Your task to perform on an android device: toggle notifications settings in the gmail app Image 0: 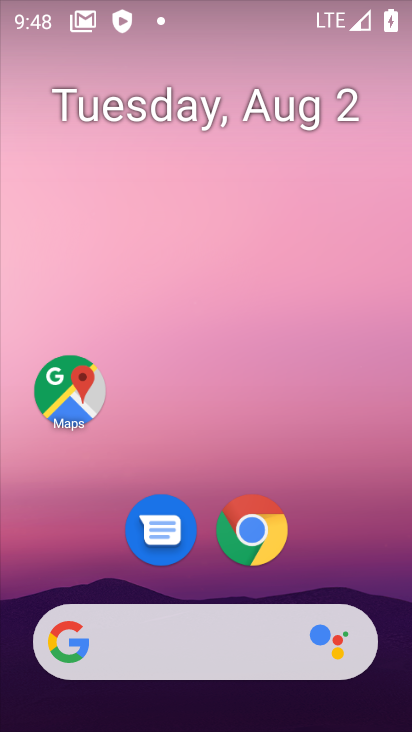
Step 0: drag from (352, 559) to (399, 1)
Your task to perform on an android device: toggle notifications settings in the gmail app Image 1: 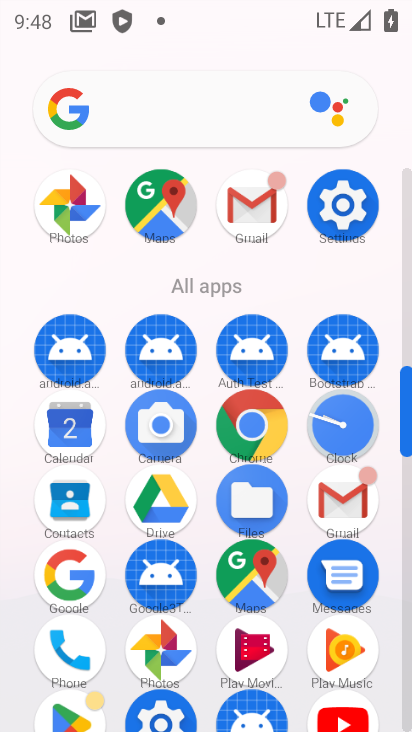
Step 1: click (340, 503)
Your task to perform on an android device: toggle notifications settings in the gmail app Image 2: 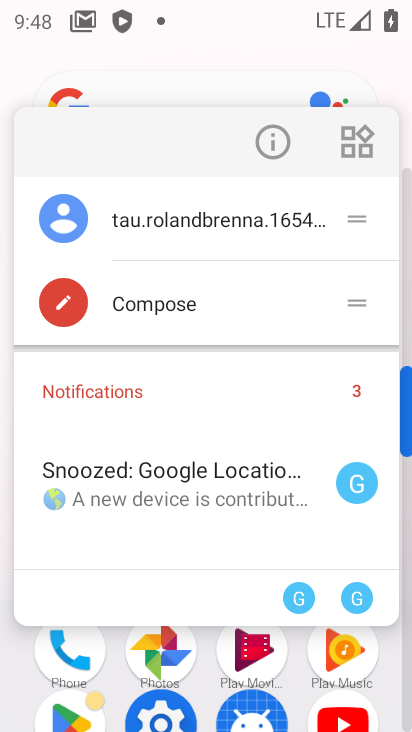
Step 2: click (276, 143)
Your task to perform on an android device: toggle notifications settings in the gmail app Image 3: 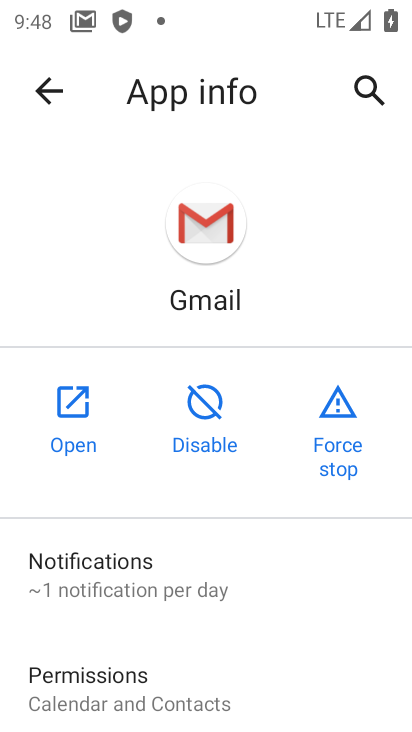
Step 3: click (126, 582)
Your task to perform on an android device: toggle notifications settings in the gmail app Image 4: 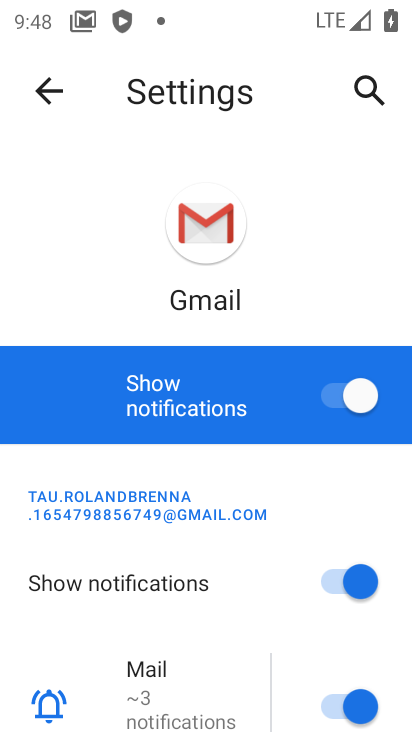
Step 4: click (306, 403)
Your task to perform on an android device: toggle notifications settings in the gmail app Image 5: 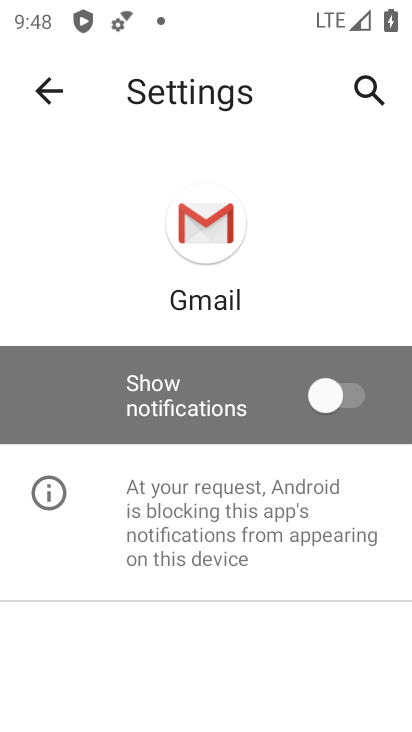
Step 5: task complete